Your task to perform on an android device: Open Chrome and go to settings Image 0: 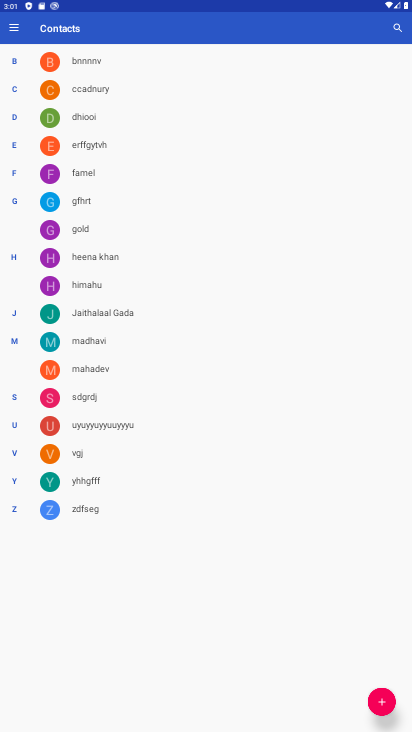
Step 0: press home button
Your task to perform on an android device: Open Chrome and go to settings Image 1: 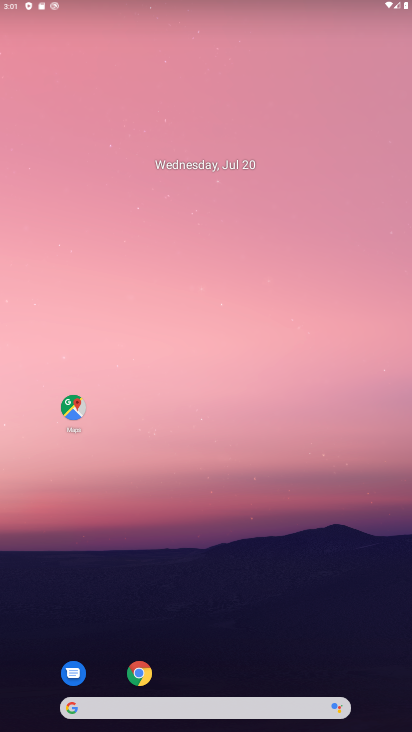
Step 1: drag from (188, 654) to (198, 174)
Your task to perform on an android device: Open Chrome and go to settings Image 2: 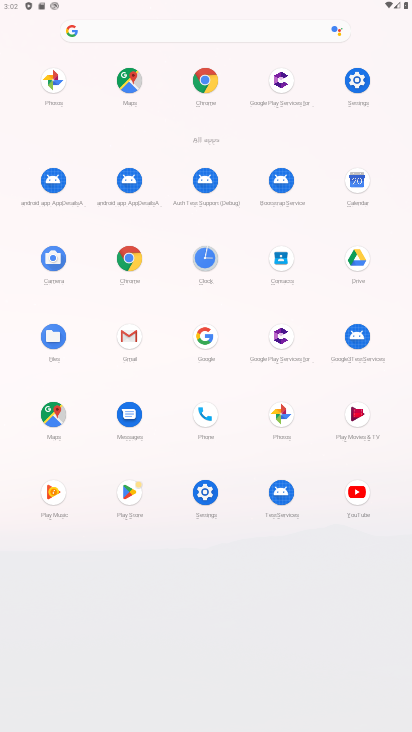
Step 2: click (197, 63)
Your task to perform on an android device: Open Chrome and go to settings Image 3: 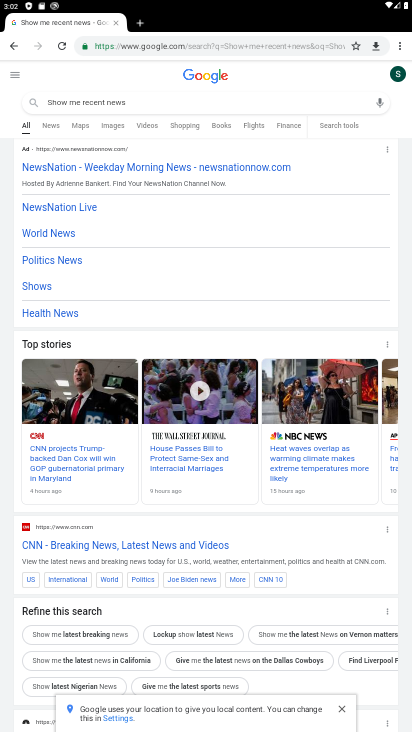
Step 3: click (404, 39)
Your task to perform on an android device: Open Chrome and go to settings Image 4: 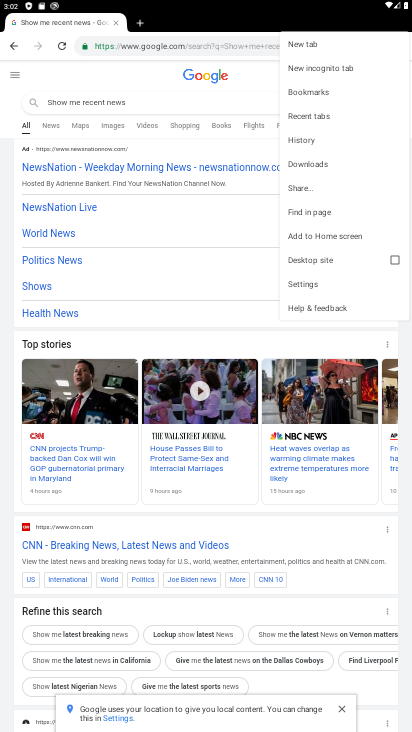
Step 4: click (297, 279)
Your task to perform on an android device: Open Chrome and go to settings Image 5: 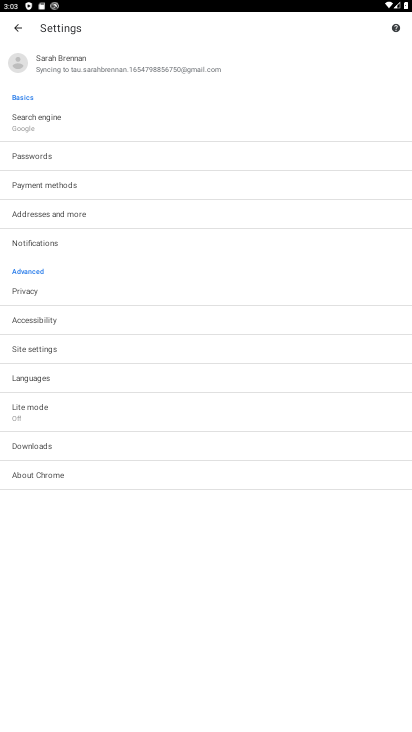
Step 5: task complete